Your task to perform on an android device: Open network settings Image 0: 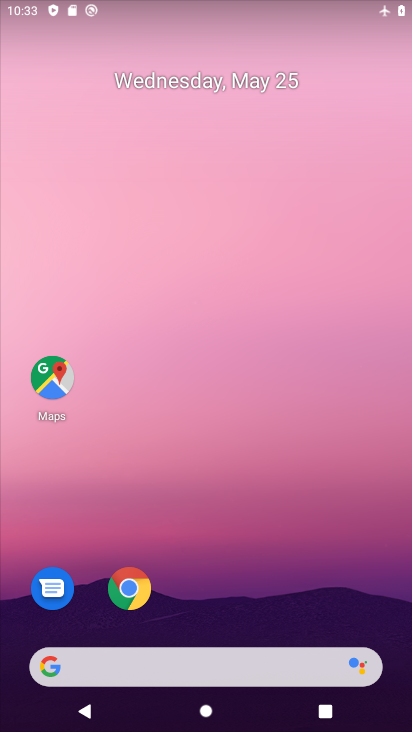
Step 0: drag from (248, 554) to (244, 62)
Your task to perform on an android device: Open network settings Image 1: 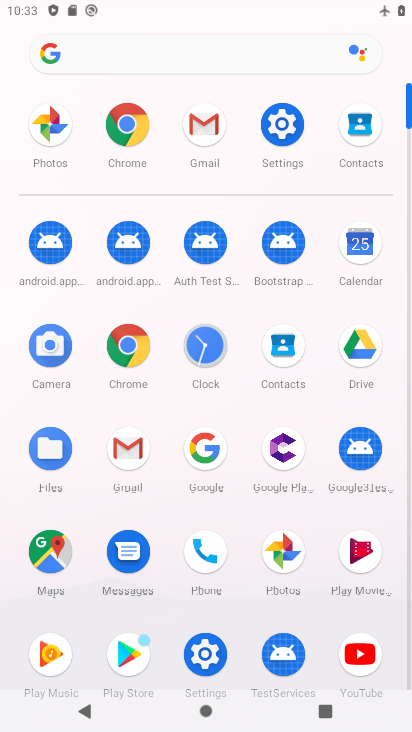
Step 1: click (291, 124)
Your task to perform on an android device: Open network settings Image 2: 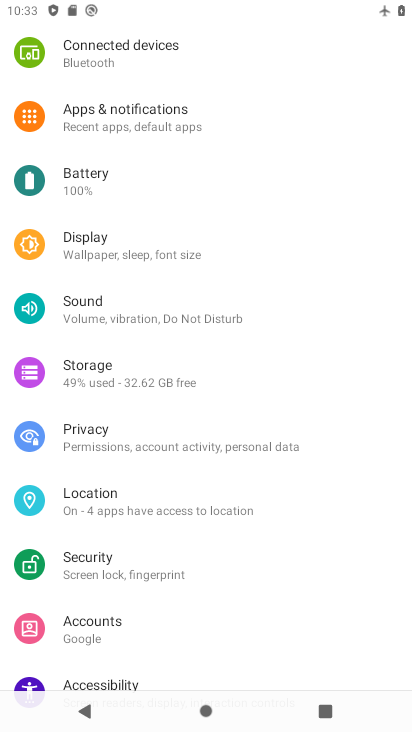
Step 2: drag from (163, 245) to (102, 540)
Your task to perform on an android device: Open network settings Image 3: 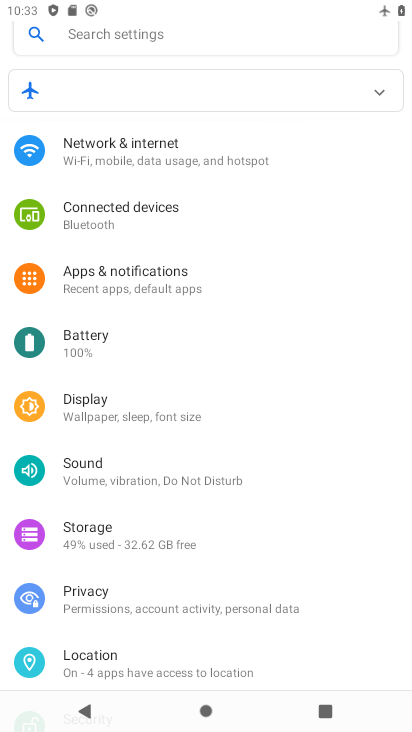
Step 3: click (140, 182)
Your task to perform on an android device: Open network settings Image 4: 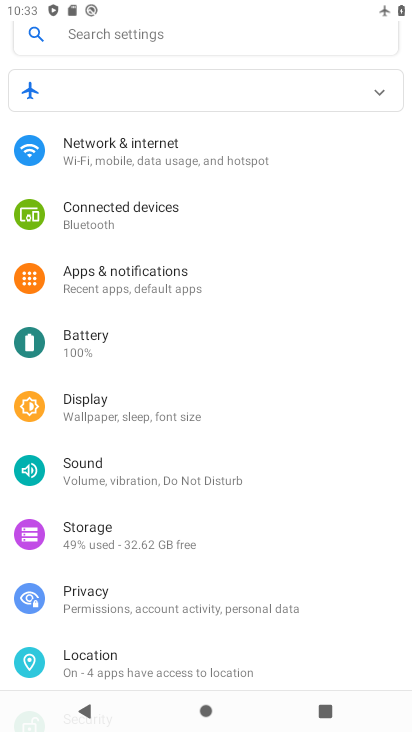
Step 4: click (151, 143)
Your task to perform on an android device: Open network settings Image 5: 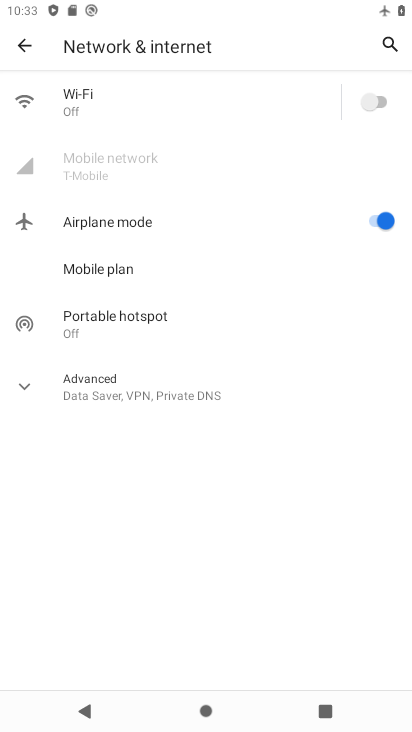
Step 5: task complete